Your task to perform on an android device: Open Yahoo.com Image 0: 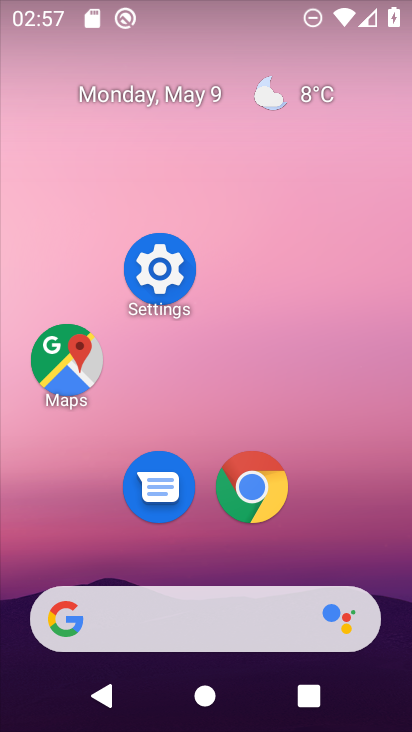
Step 0: click (244, 503)
Your task to perform on an android device: Open Yahoo.com Image 1: 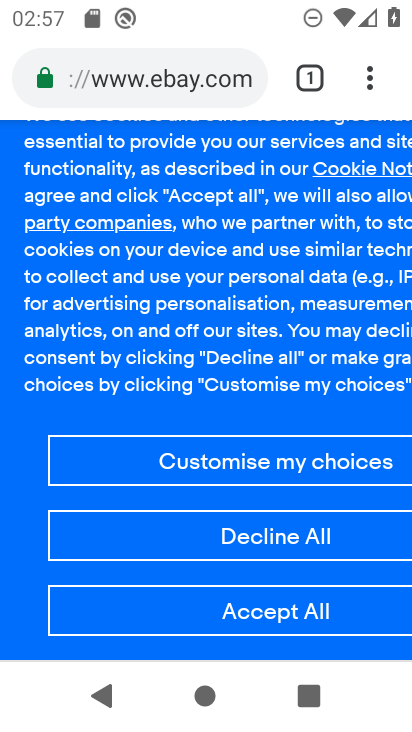
Step 1: click (216, 80)
Your task to perform on an android device: Open Yahoo.com Image 2: 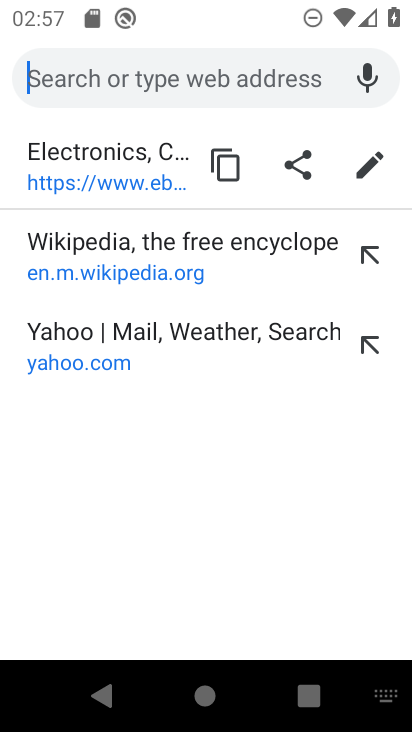
Step 2: click (69, 331)
Your task to perform on an android device: Open Yahoo.com Image 3: 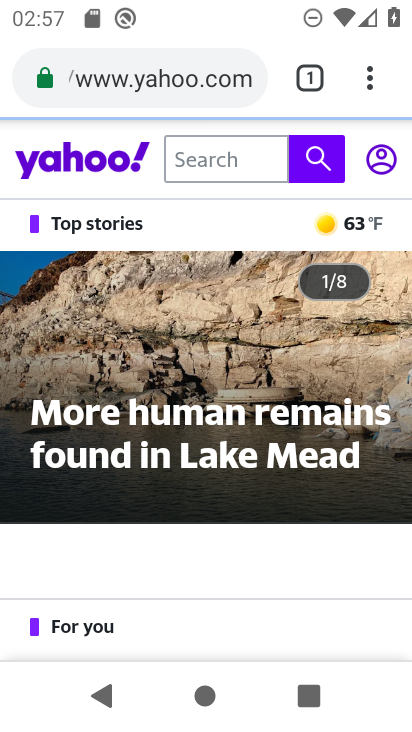
Step 3: task complete